Your task to perform on an android device: stop showing notifications on the lock screen Image 0: 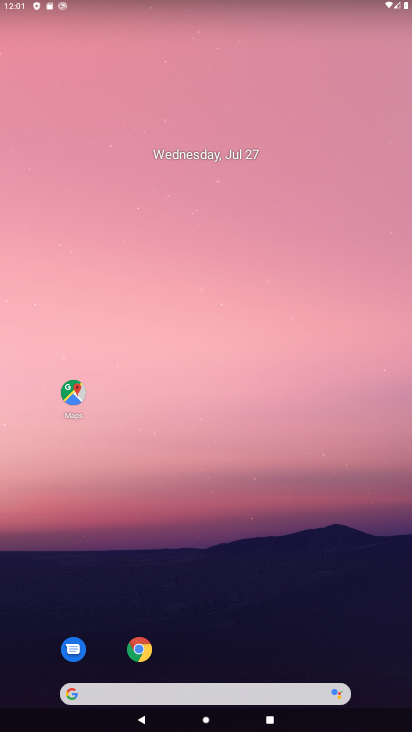
Step 0: drag from (206, 583) to (195, 170)
Your task to perform on an android device: stop showing notifications on the lock screen Image 1: 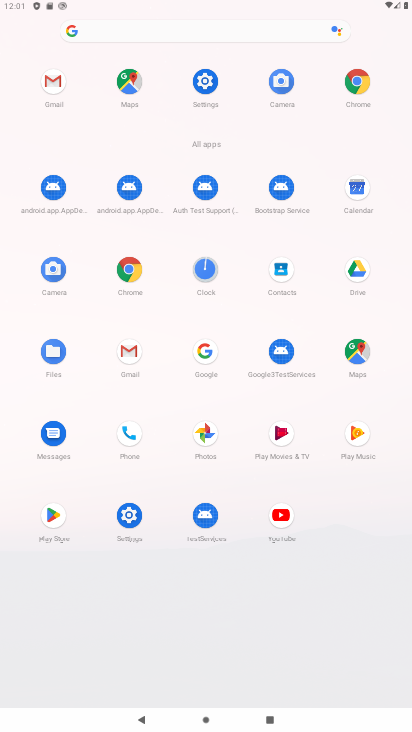
Step 1: click (205, 81)
Your task to perform on an android device: stop showing notifications on the lock screen Image 2: 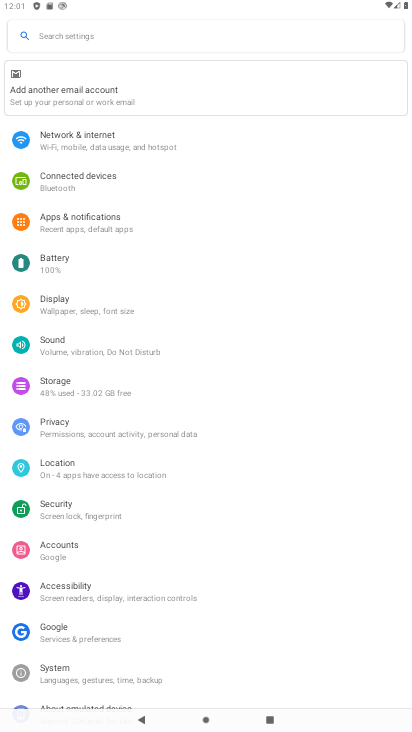
Step 2: click (83, 220)
Your task to perform on an android device: stop showing notifications on the lock screen Image 3: 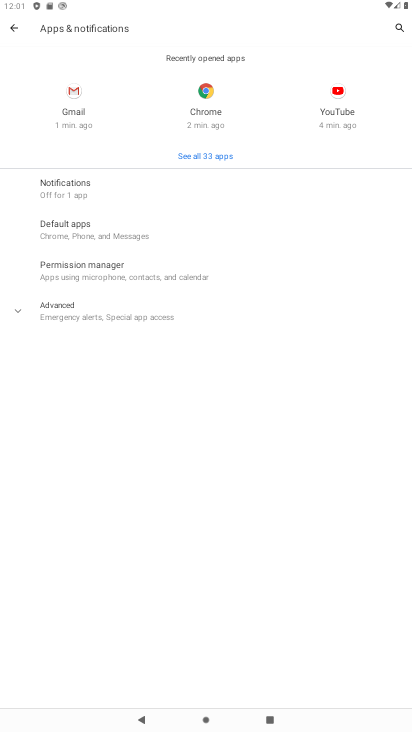
Step 3: click (60, 176)
Your task to perform on an android device: stop showing notifications on the lock screen Image 4: 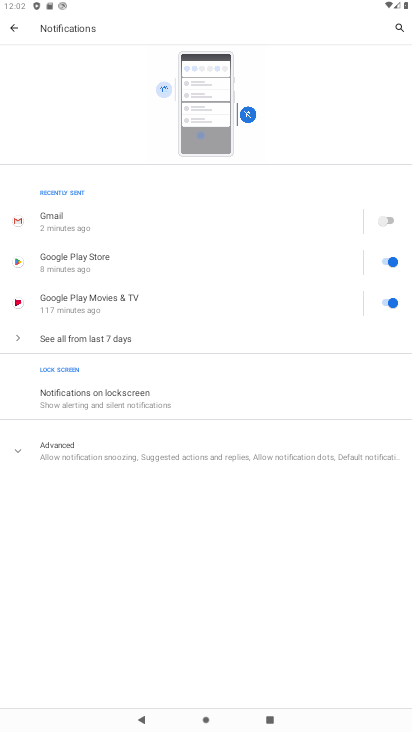
Step 4: click (93, 392)
Your task to perform on an android device: stop showing notifications on the lock screen Image 5: 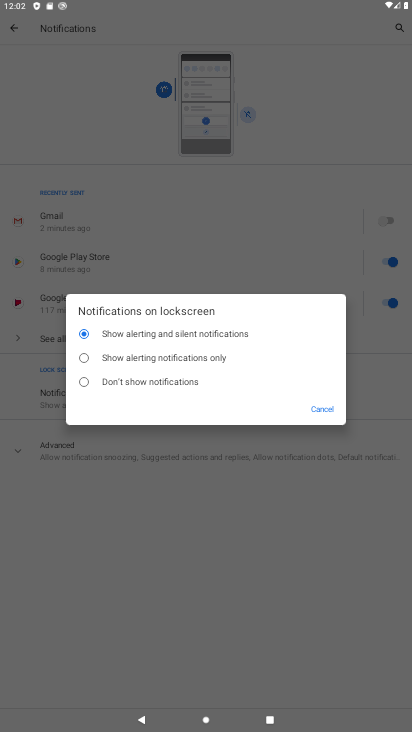
Step 5: click (88, 389)
Your task to perform on an android device: stop showing notifications on the lock screen Image 6: 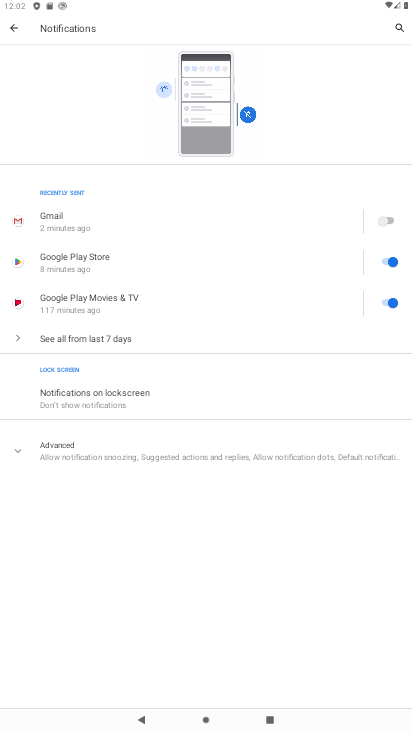
Step 6: task complete